Your task to perform on an android device: Open ESPN.com Image 0: 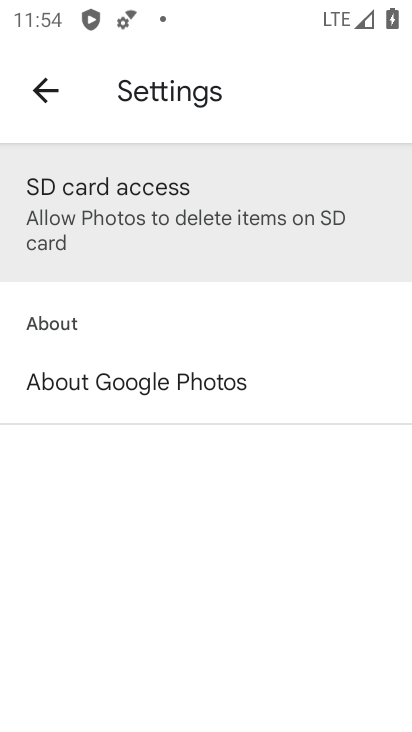
Step 0: press home button
Your task to perform on an android device: Open ESPN.com Image 1: 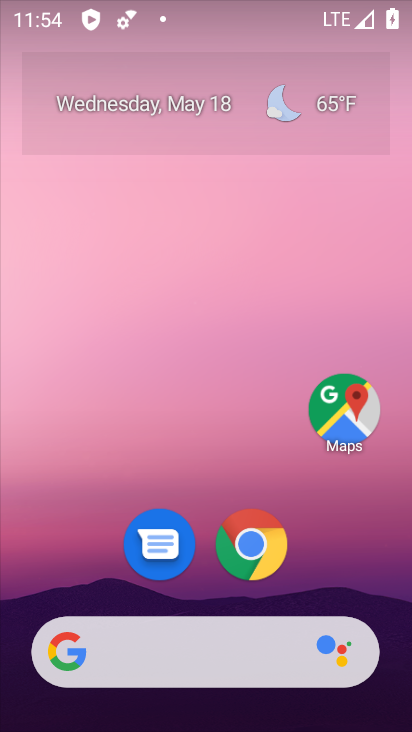
Step 1: drag from (366, 580) to (348, 256)
Your task to perform on an android device: Open ESPN.com Image 2: 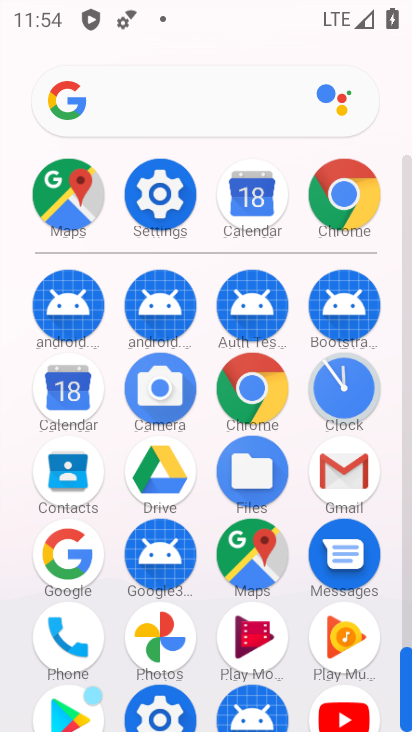
Step 2: click (267, 381)
Your task to perform on an android device: Open ESPN.com Image 3: 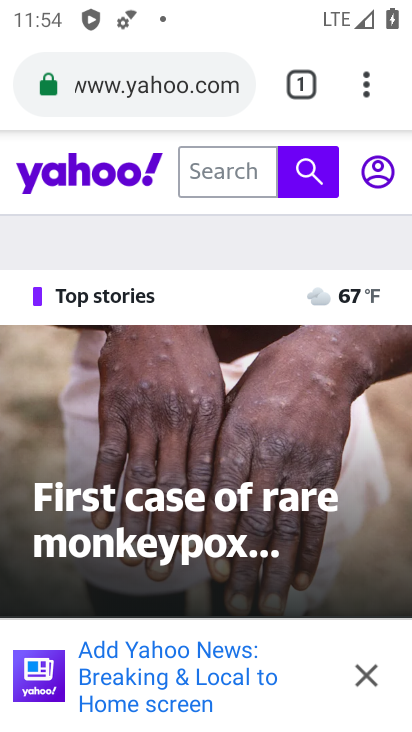
Step 3: press back button
Your task to perform on an android device: Open ESPN.com Image 4: 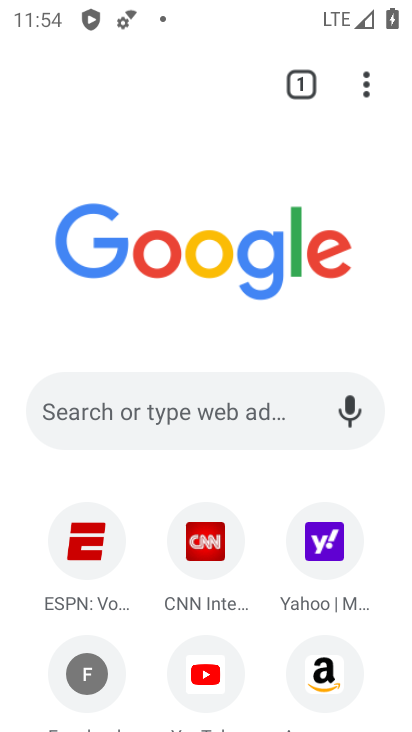
Step 4: click (64, 584)
Your task to perform on an android device: Open ESPN.com Image 5: 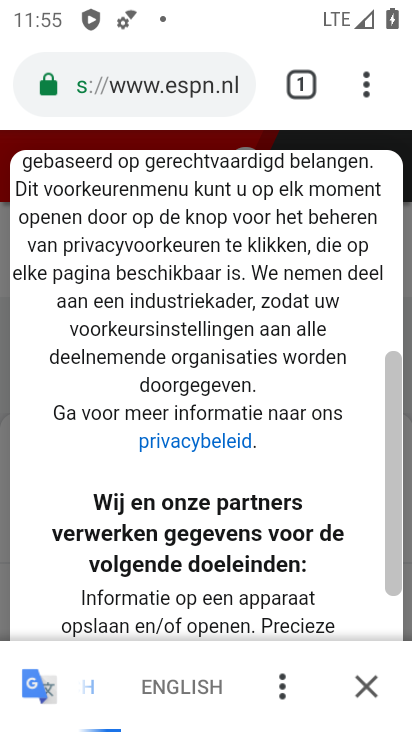
Step 5: task complete